Your task to perform on an android device: Open the stopwatch Image 0: 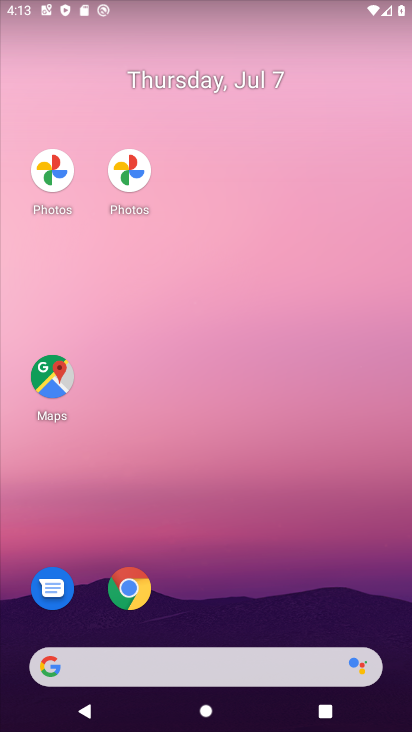
Step 0: drag from (232, 560) to (191, 235)
Your task to perform on an android device: Open the stopwatch Image 1: 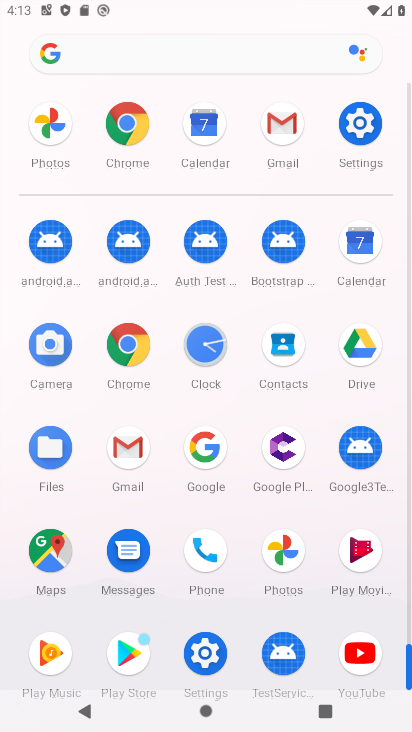
Step 1: click (206, 341)
Your task to perform on an android device: Open the stopwatch Image 2: 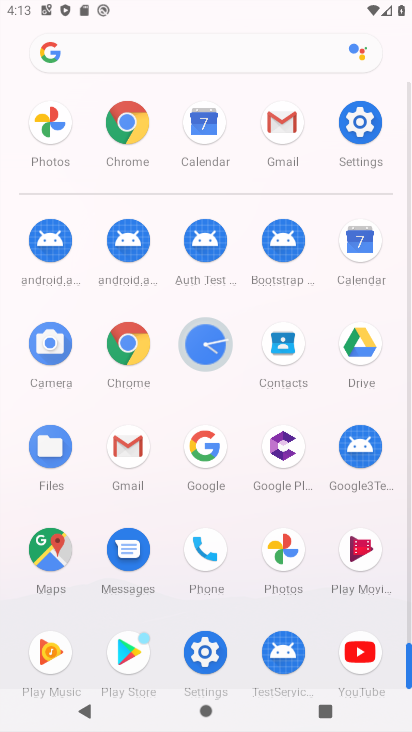
Step 2: click (206, 341)
Your task to perform on an android device: Open the stopwatch Image 3: 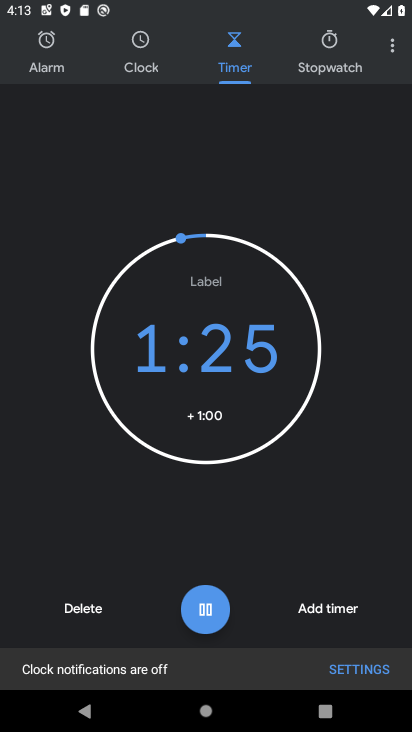
Step 3: click (320, 65)
Your task to perform on an android device: Open the stopwatch Image 4: 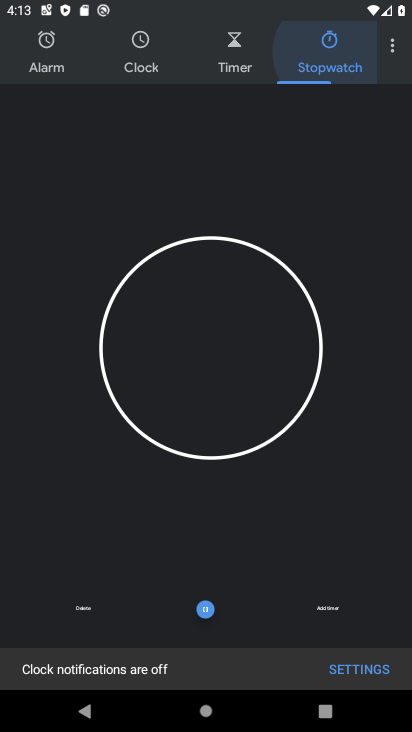
Step 4: click (322, 66)
Your task to perform on an android device: Open the stopwatch Image 5: 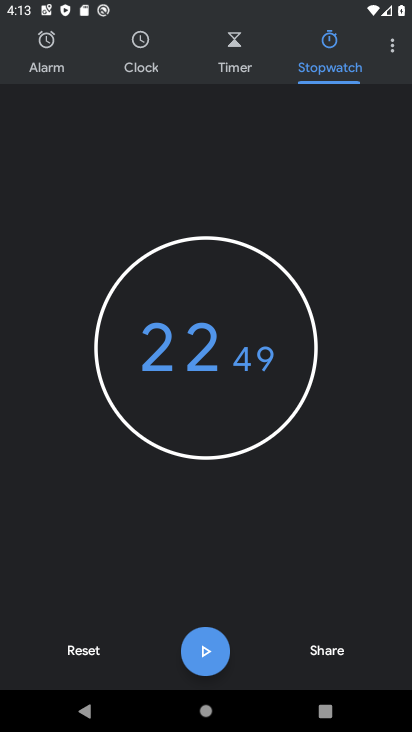
Step 5: task complete